Your task to perform on an android device: turn off location history Image 0: 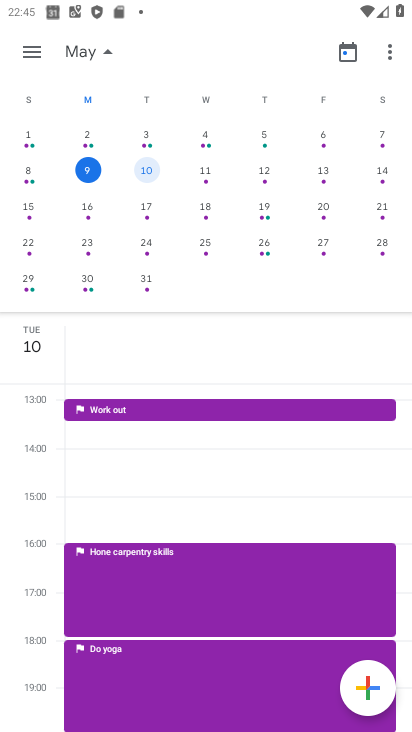
Step 0: press home button
Your task to perform on an android device: turn off location history Image 1: 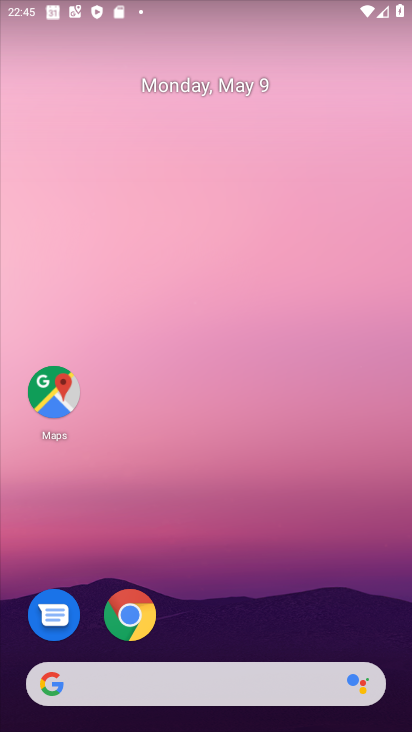
Step 1: drag from (186, 640) to (216, 231)
Your task to perform on an android device: turn off location history Image 2: 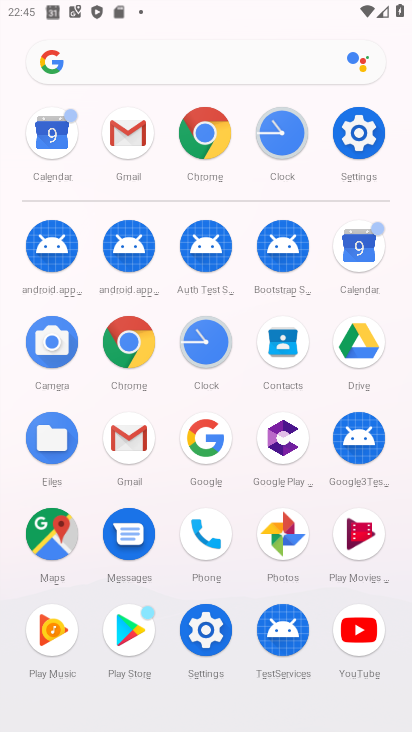
Step 2: click (349, 134)
Your task to perform on an android device: turn off location history Image 3: 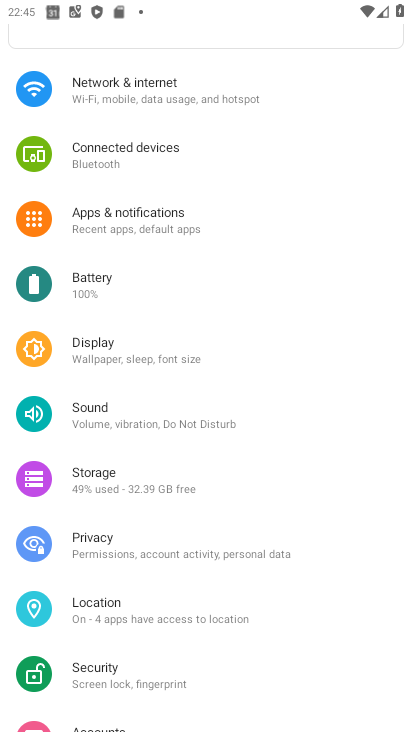
Step 3: click (128, 619)
Your task to perform on an android device: turn off location history Image 4: 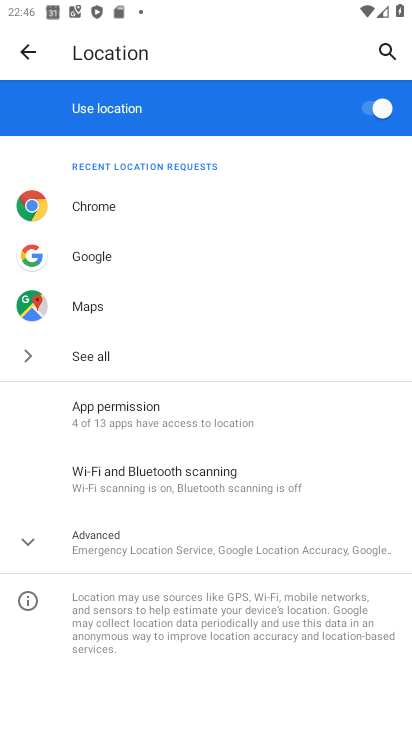
Step 4: click (31, 540)
Your task to perform on an android device: turn off location history Image 5: 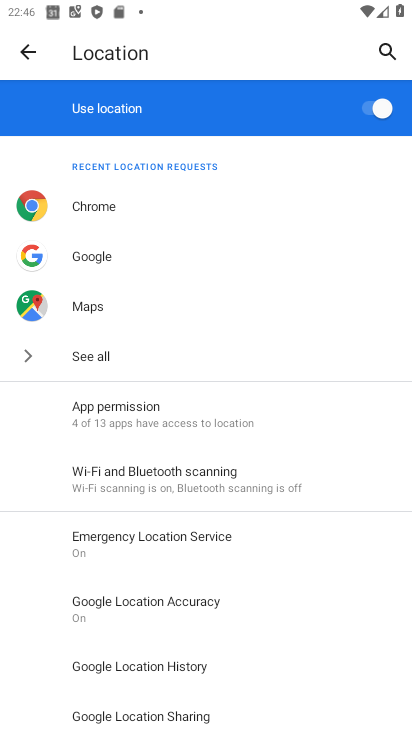
Step 5: drag from (178, 635) to (236, 406)
Your task to perform on an android device: turn off location history Image 6: 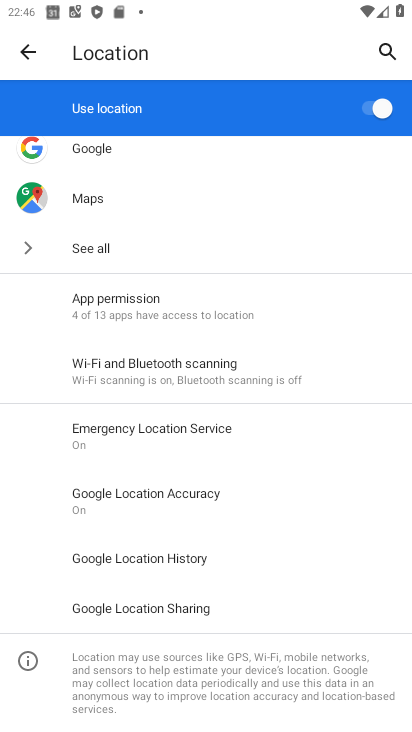
Step 6: click (130, 556)
Your task to perform on an android device: turn off location history Image 7: 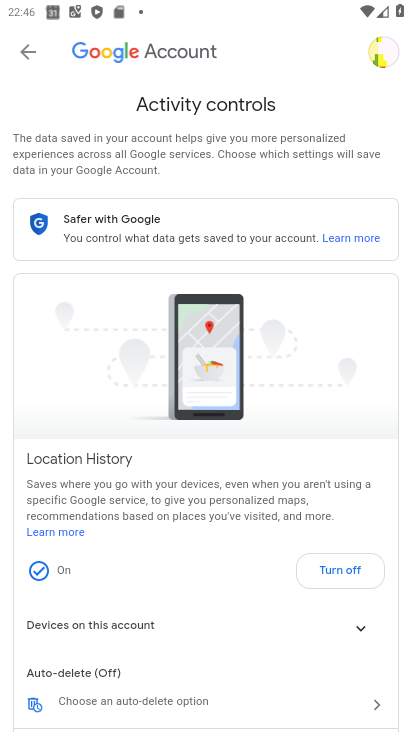
Step 7: click (341, 572)
Your task to perform on an android device: turn off location history Image 8: 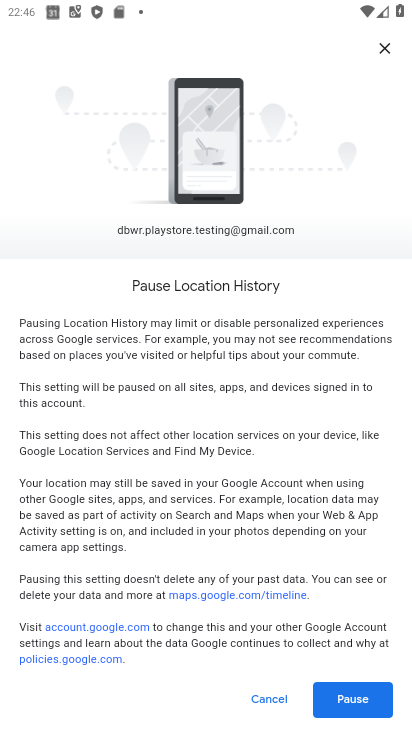
Step 8: task complete